Your task to perform on an android device: set an alarm Image 0: 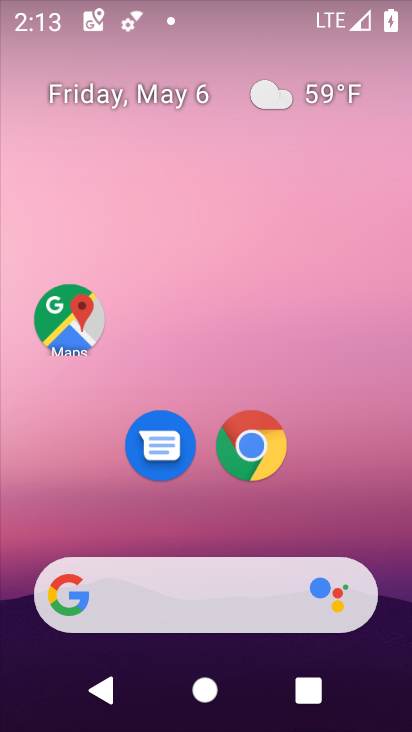
Step 0: drag from (312, 519) to (335, 4)
Your task to perform on an android device: set an alarm Image 1: 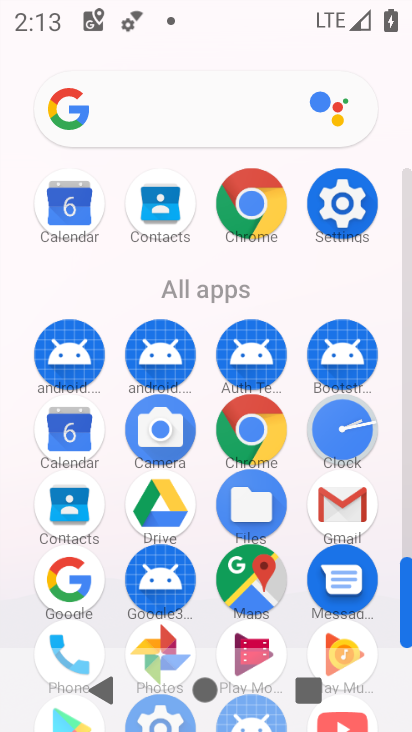
Step 1: click (352, 425)
Your task to perform on an android device: set an alarm Image 2: 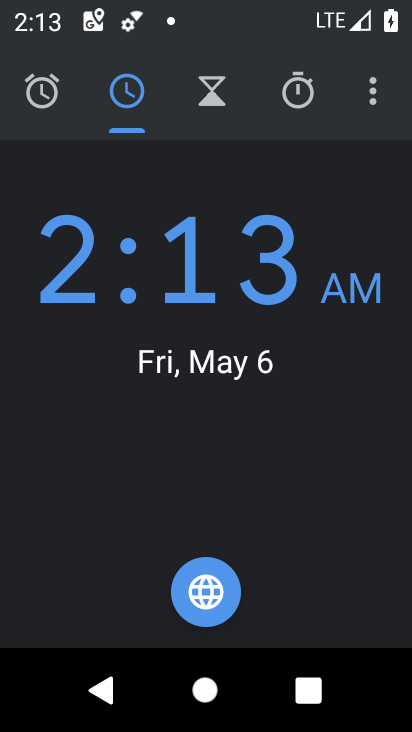
Step 2: click (51, 90)
Your task to perform on an android device: set an alarm Image 3: 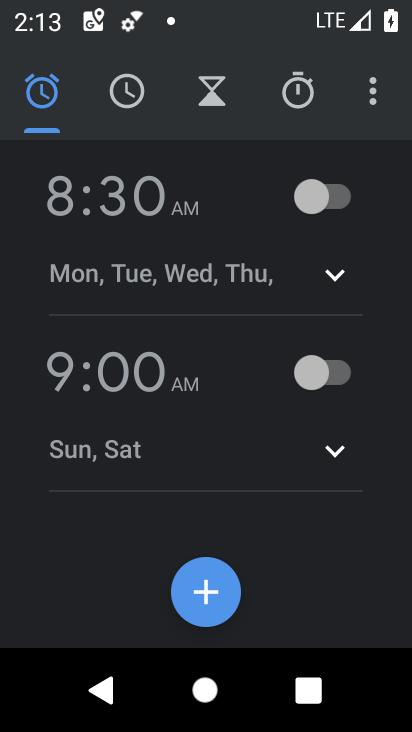
Step 3: click (208, 583)
Your task to perform on an android device: set an alarm Image 4: 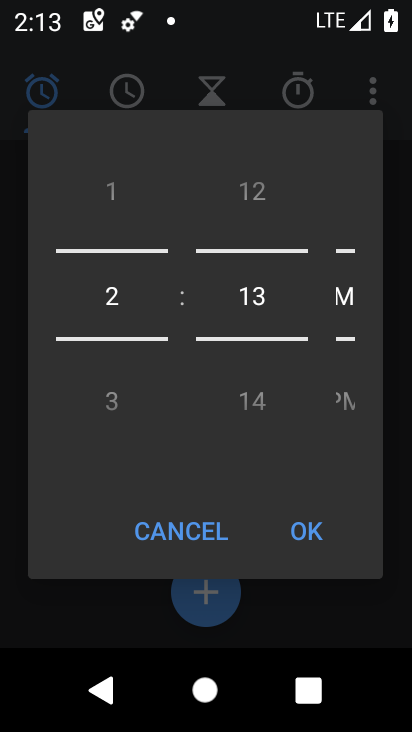
Step 4: click (301, 530)
Your task to perform on an android device: set an alarm Image 5: 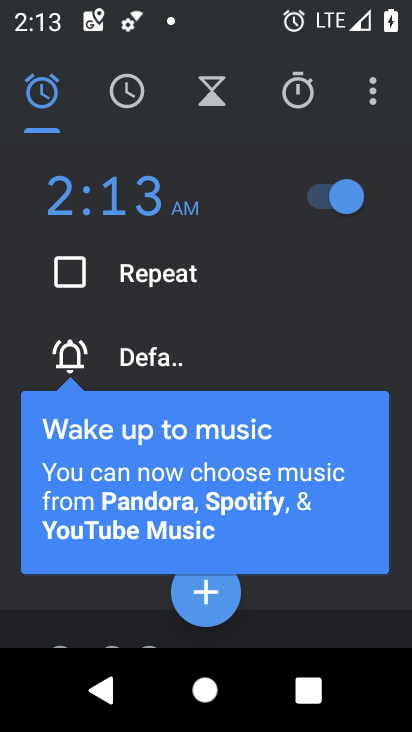
Step 5: click (340, 586)
Your task to perform on an android device: set an alarm Image 6: 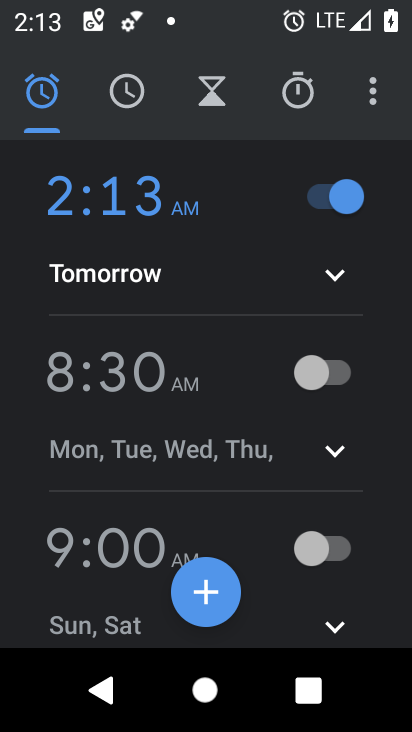
Step 6: task complete